Your task to perform on an android device: turn off notifications in google photos Image 0: 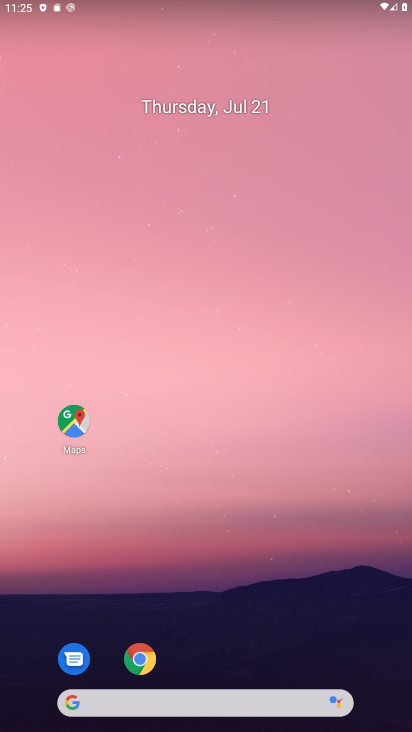
Step 0: task complete